Your task to perform on an android device: Open Google Chrome Image 0: 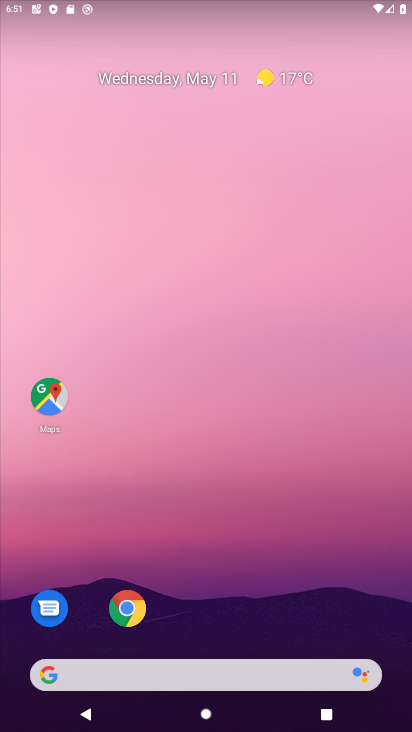
Step 0: click (120, 614)
Your task to perform on an android device: Open Google Chrome Image 1: 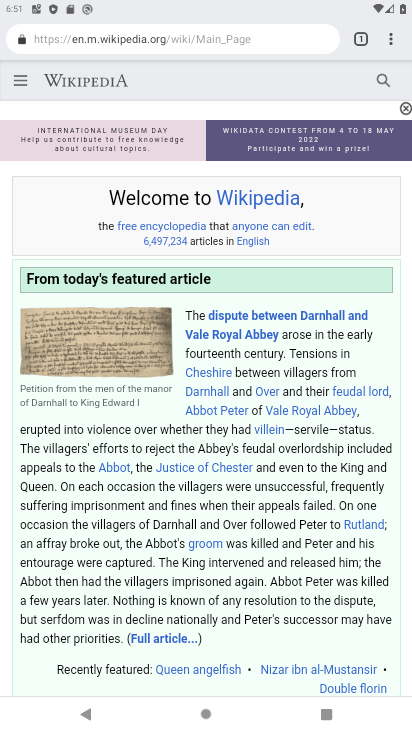
Step 1: task complete